Your task to perform on an android device: read, delete, or share a saved page in the chrome app Image 0: 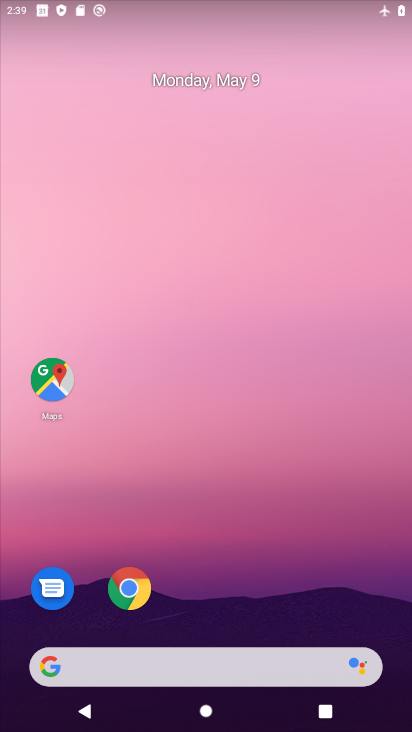
Step 0: drag from (348, 631) to (299, 372)
Your task to perform on an android device: read, delete, or share a saved page in the chrome app Image 1: 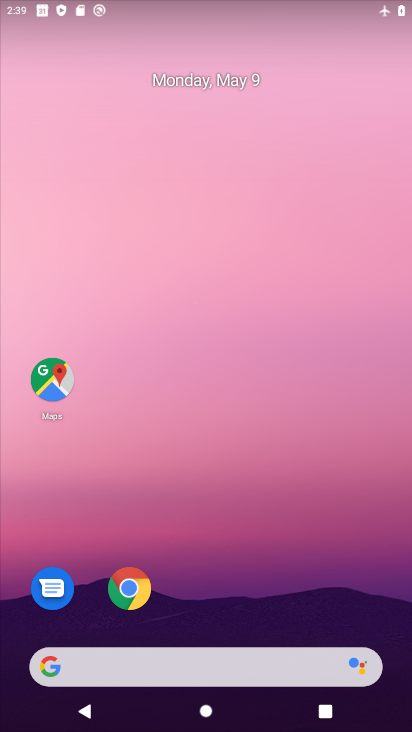
Step 1: drag from (329, 608) to (291, 130)
Your task to perform on an android device: read, delete, or share a saved page in the chrome app Image 2: 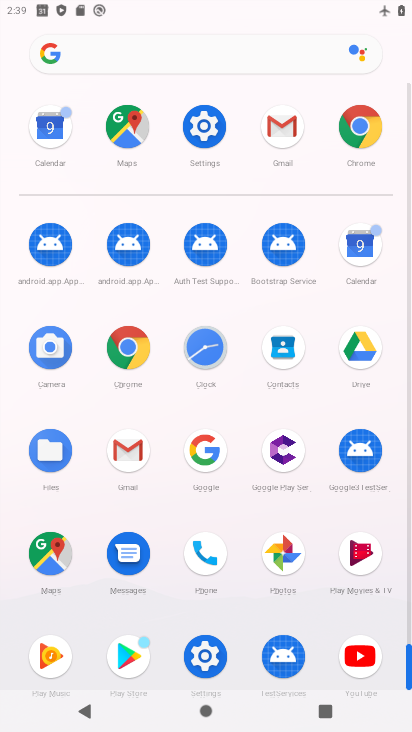
Step 2: click (367, 124)
Your task to perform on an android device: read, delete, or share a saved page in the chrome app Image 3: 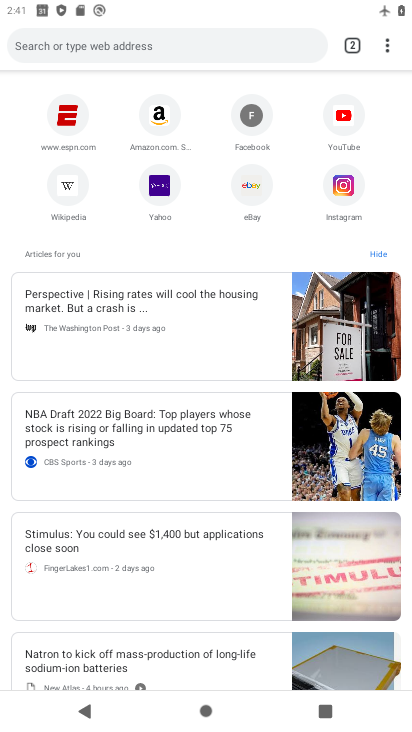
Step 3: task complete